Your task to perform on an android device: Show me recent news Image 0: 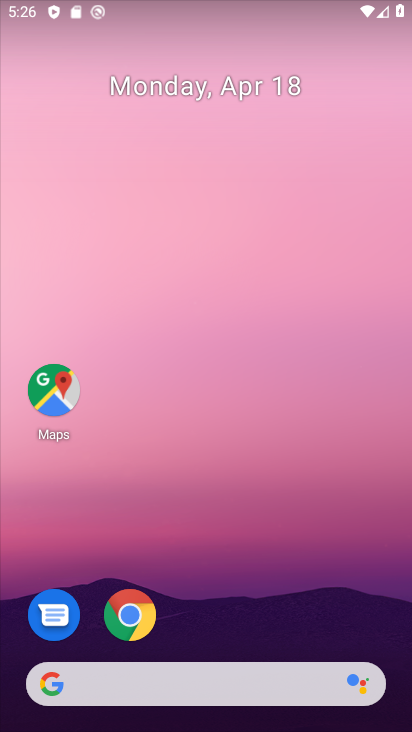
Step 0: drag from (234, 643) to (206, 342)
Your task to perform on an android device: Show me recent news Image 1: 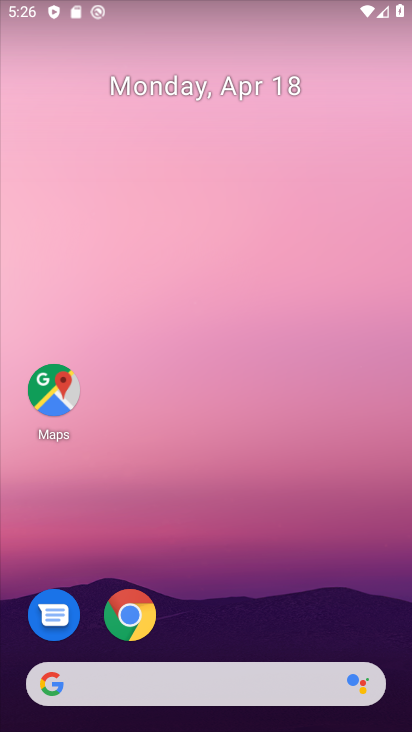
Step 1: drag from (203, 537) to (260, 166)
Your task to perform on an android device: Show me recent news Image 2: 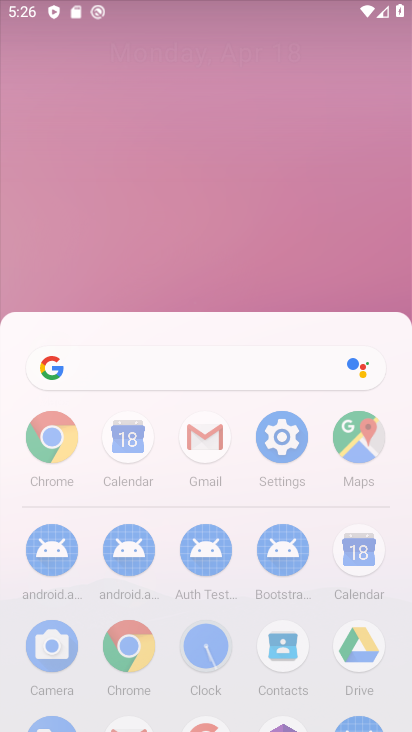
Step 2: click (325, 87)
Your task to perform on an android device: Show me recent news Image 3: 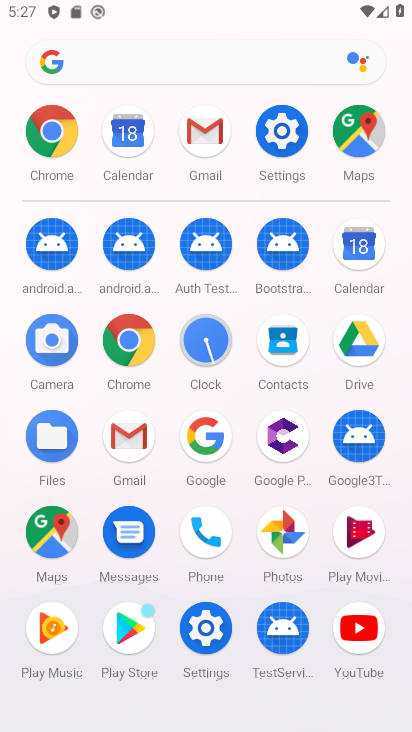
Step 3: click (41, 125)
Your task to perform on an android device: Show me recent news Image 4: 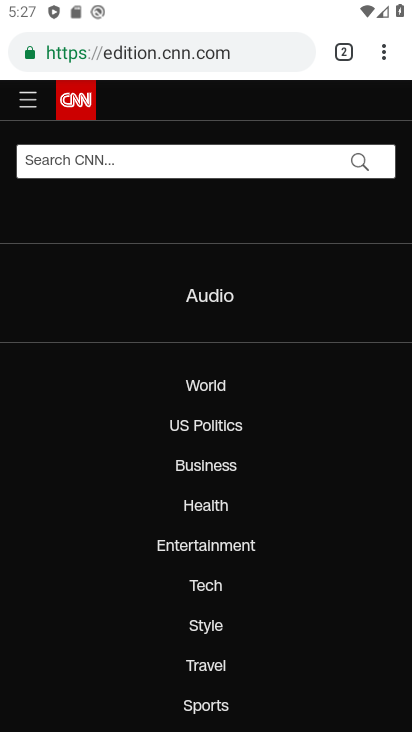
Step 4: click (161, 47)
Your task to perform on an android device: Show me recent news Image 5: 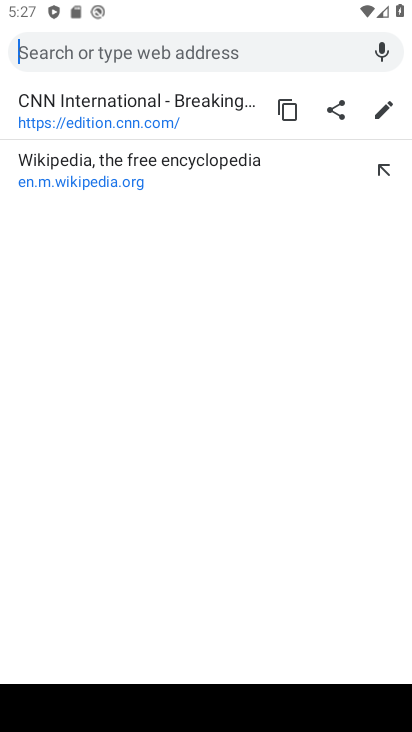
Step 5: click (161, 49)
Your task to perform on an android device: Show me recent news Image 6: 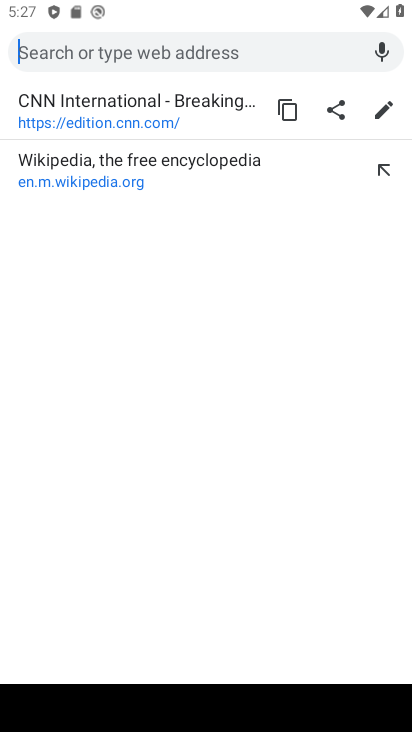
Step 6: type "Show me recent news"
Your task to perform on an android device: Show me recent news Image 7: 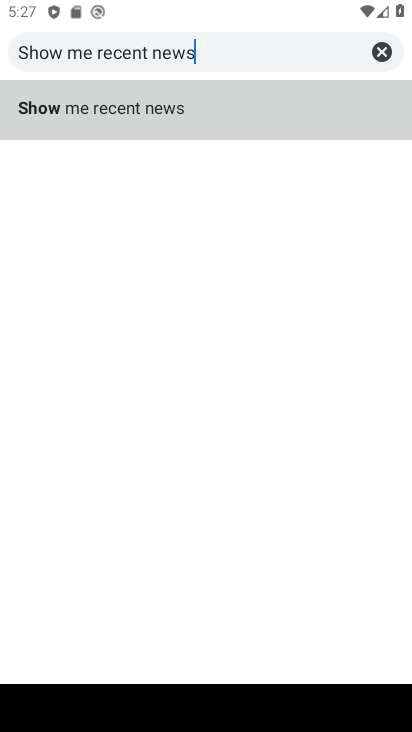
Step 7: type ""
Your task to perform on an android device: Show me recent news Image 8: 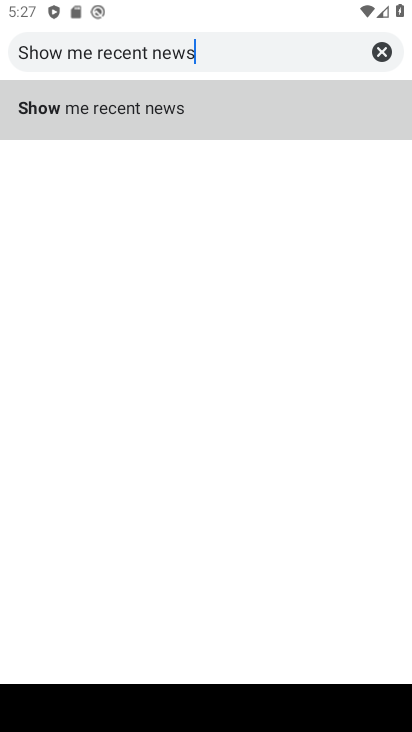
Step 8: click (30, 93)
Your task to perform on an android device: Show me recent news Image 9: 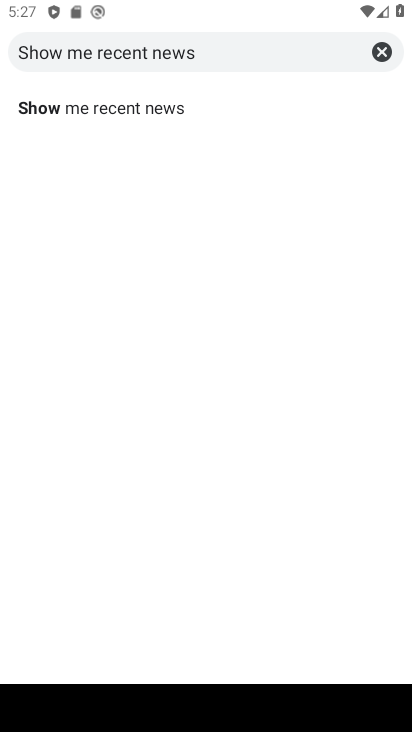
Step 9: click (137, 121)
Your task to perform on an android device: Show me recent news Image 10: 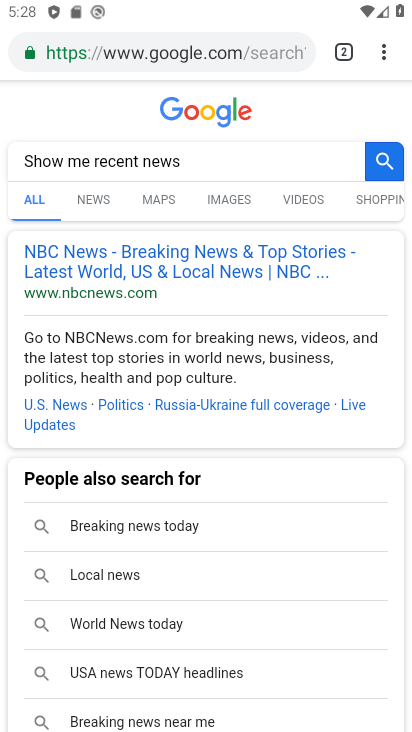
Step 10: task complete